Your task to perform on an android device: toggle pop-ups in chrome Image 0: 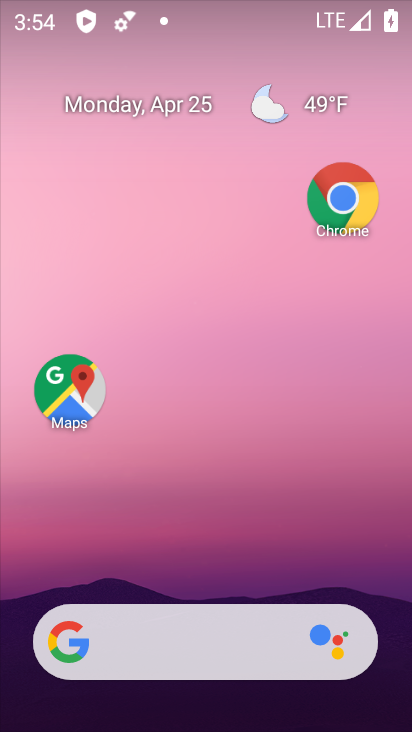
Step 0: drag from (173, 654) to (313, 113)
Your task to perform on an android device: toggle pop-ups in chrome Image 1: 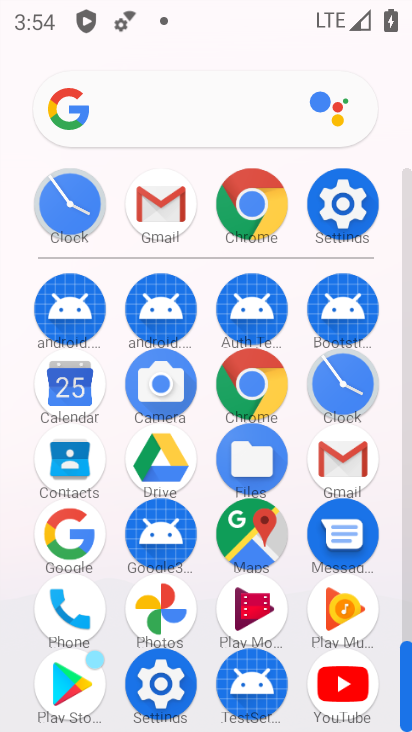
Step 1: click (258, 212)
Your task to perform on an android device: toggle pop-ups in chrome Image 2: 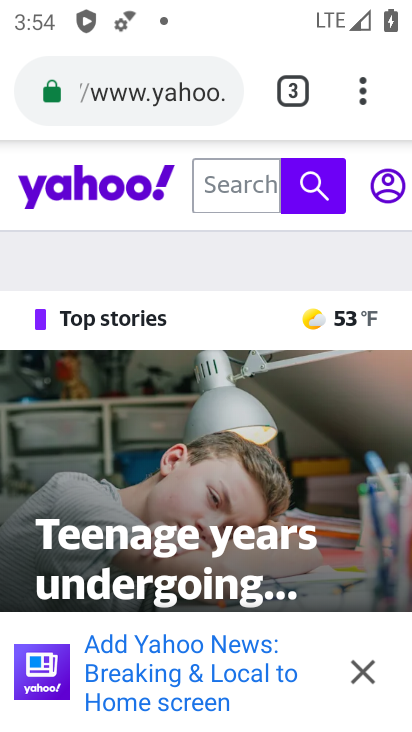
Step 2: drag from (361, 95) to (150, 568)
Your task to perform on an android device: toggle pop-ups in chrome Image 3: 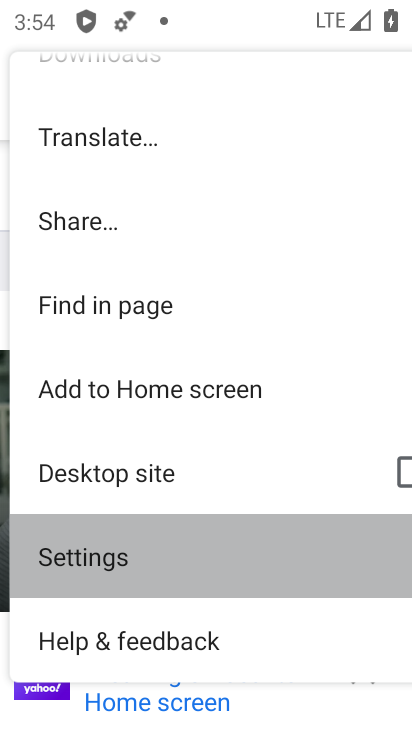
Step 3: click (150, 566)
Your task to perform on an android device: toggle pop-ups in chrome Image 4: 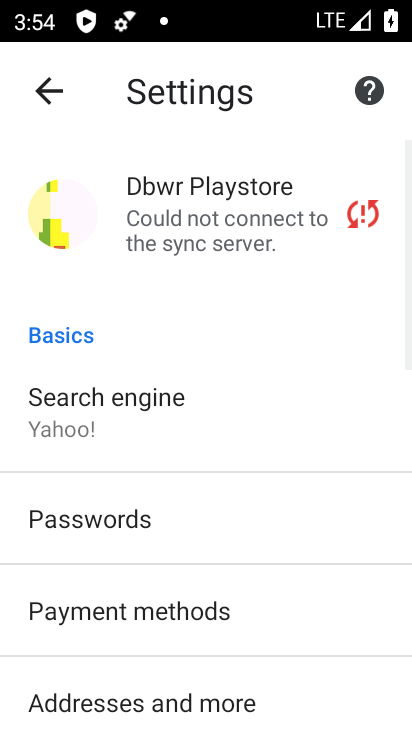
Step 4: drag from (116, 656) to (364, 204)
Your task to perform on an android device: toggle pop-ups in chrome Image 5: 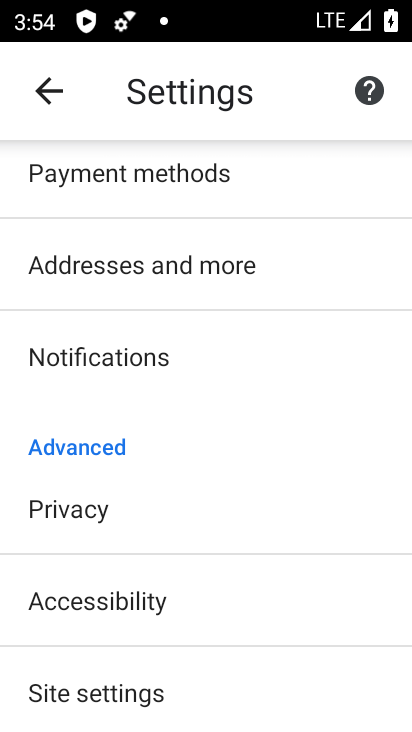
Step 5: drag from (194, 663) to (352, 239)
Your task to perform on an android device: toggle pop-ups in chrome Image 6: 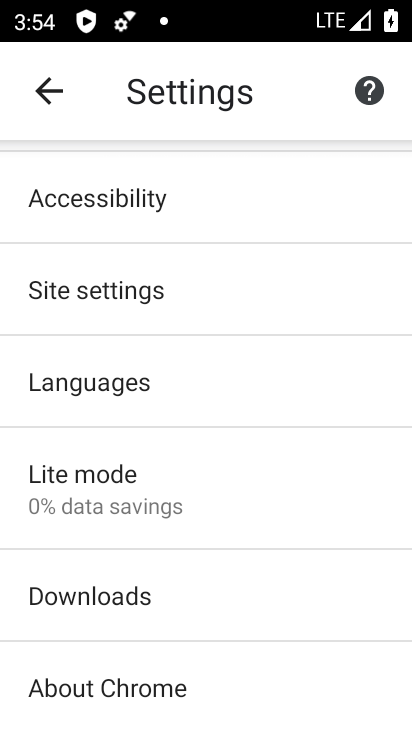
Step 6: click (120, 293)
Your task to perform on an android device: toggle pop-ups in chrome Image 7: 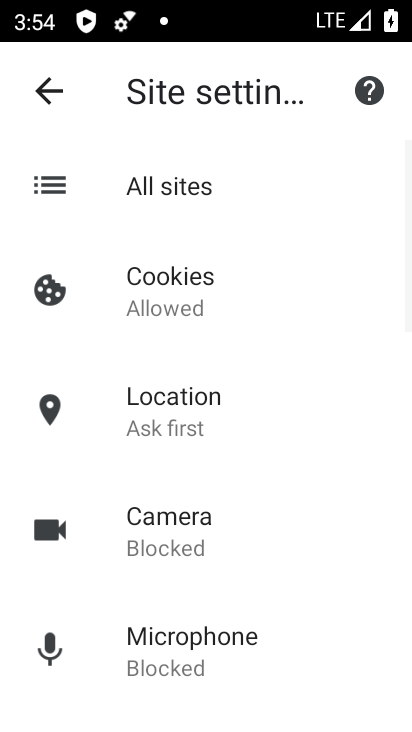
Step 7: drag from (210, 574) to (317, 215)
Your task to perform on an android device: toggle pop-ups in chrome Image 8: 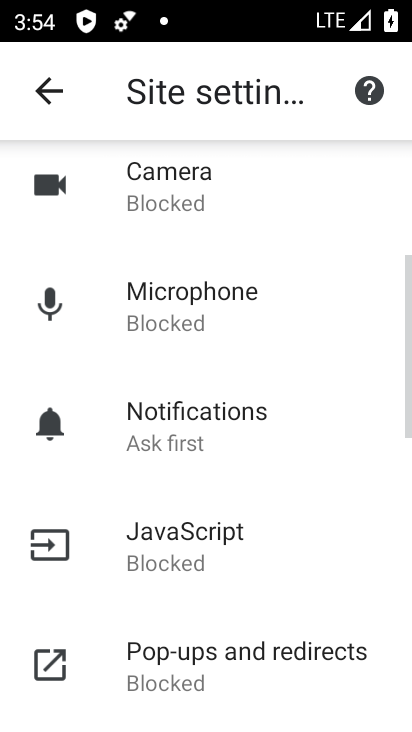
Step 8: click (203, 650)
Your task to perform on an android device: toggle pop-ups in chrome Image 9: 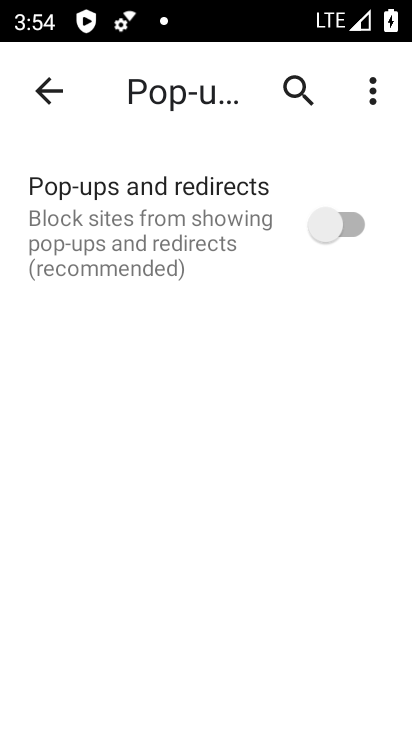
Step 9: click (352, 222)
Your task to perform on an android device: toggle pop-ups in chrome Image 10: 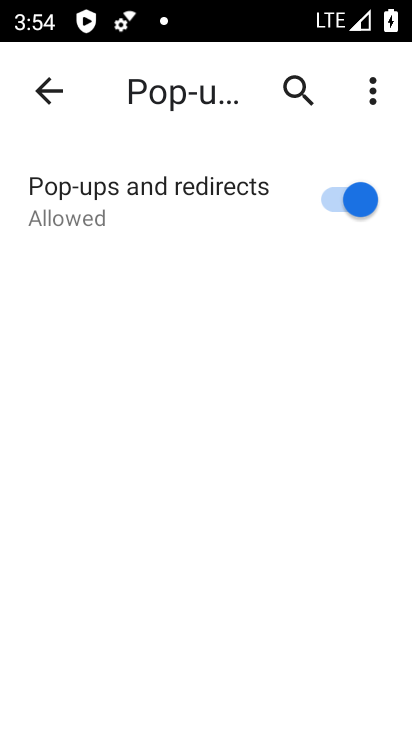
Step 10: task complete